Your task to perform on an android device: Check the news Image 0: 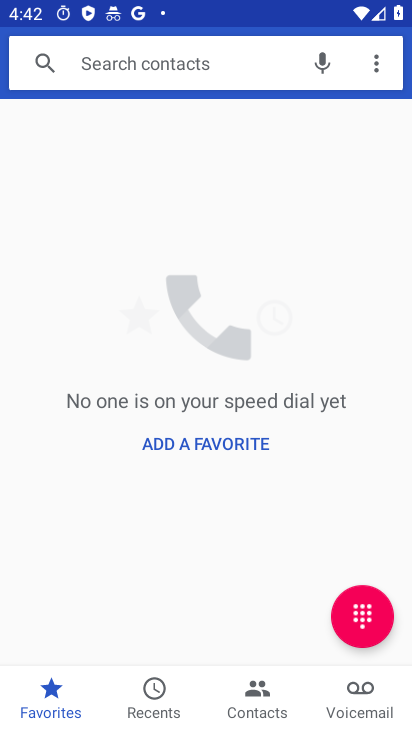
Step 0: press home button
Your task to perform on an android device: Check the news Image 1: 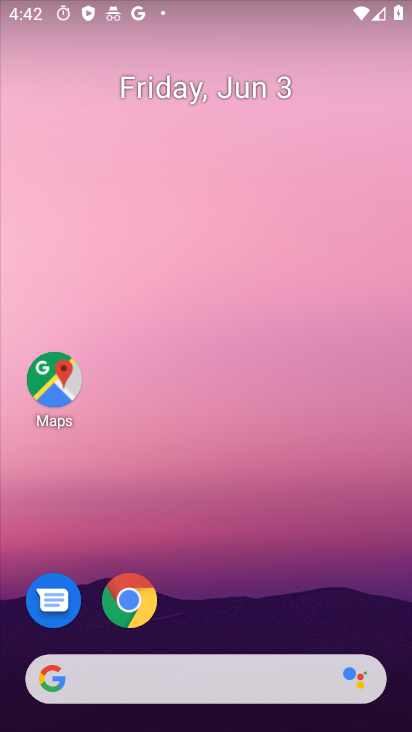
Step 1: task complete